Your task to perform on an android device: turn on airplane mode Image 0: 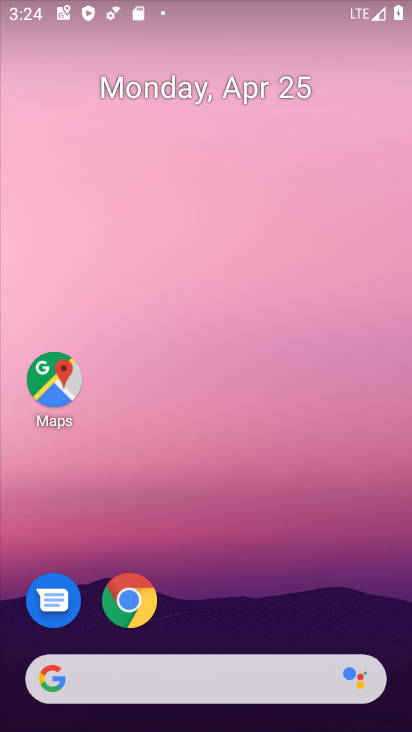
Step 0: drag from (334, 426) to (287, 86)
Your task to perform on an android device: turn on airplane mode Image 1: 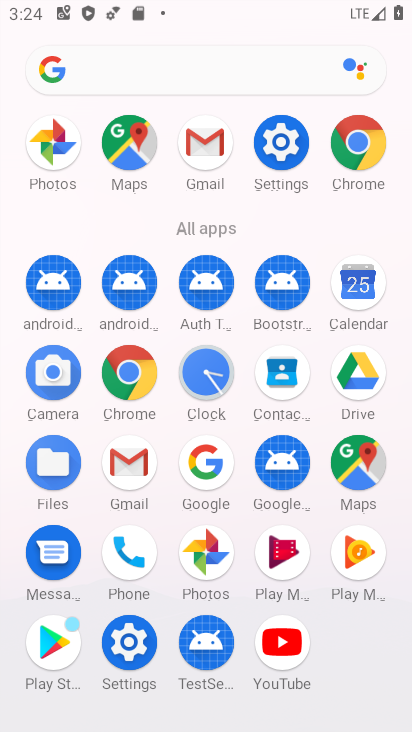
Step 1: click (276, 133)
Your task to perform on an android device: turn on airplane mode Image 2: 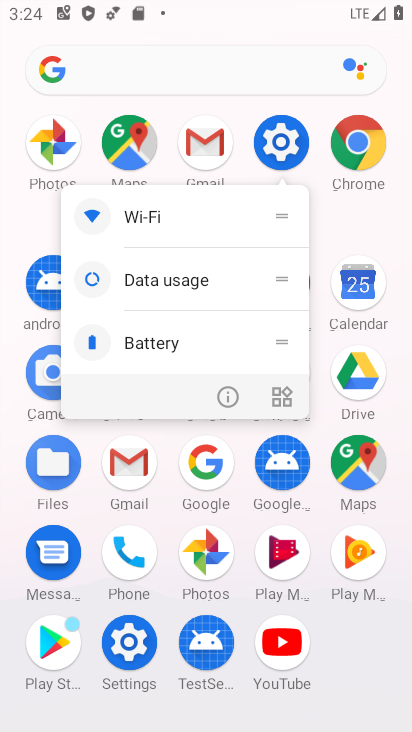
Step 2: click (281, 138)
Your task to perform on an android device: turn on airplane mode Image 3: 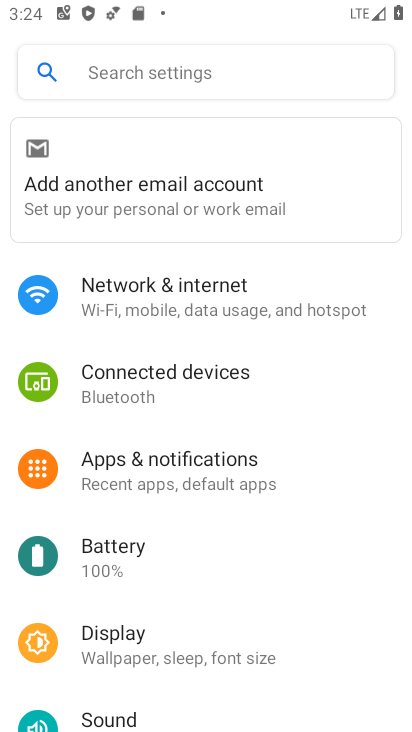
Step 3: click (234, 304)
Your task to perform on an android device: turn on airplane mode Image 4: 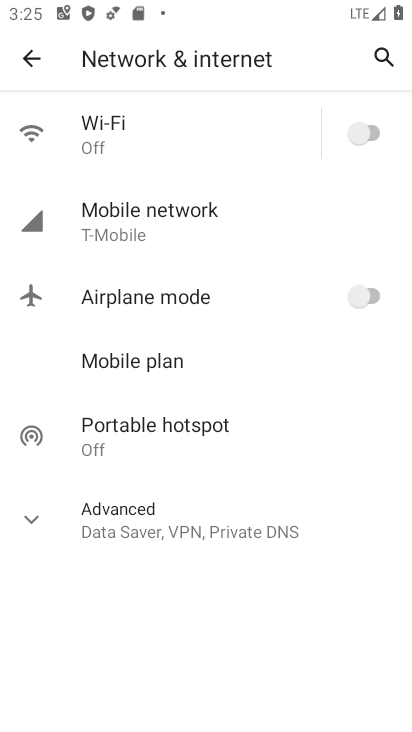
Step 4: click (366, 314)
Your task to perform on an android device: turn on airplane mode Image 5: 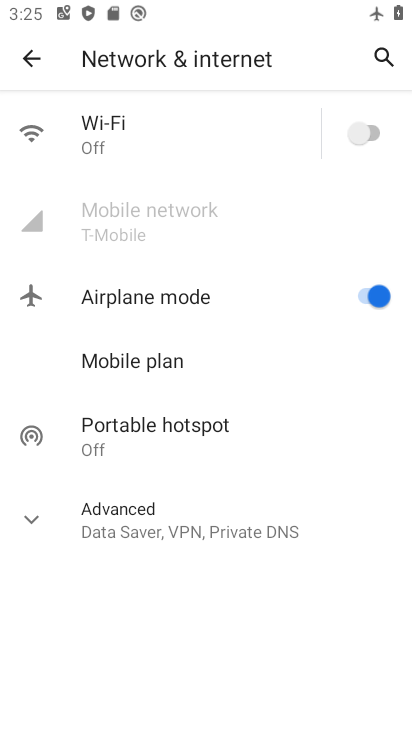
Step 5: task complete